Your task to perform on an android device: delete location history Image 0: 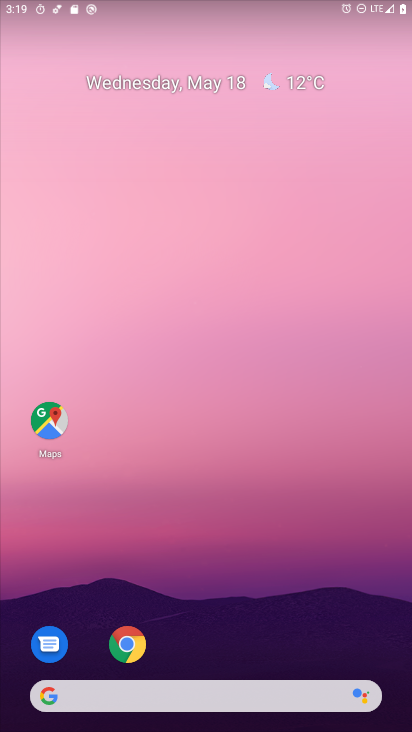
Step 0: drag from (383, 660) to (322, 129)
Your task to perform on an android device: delete location history Image 1: 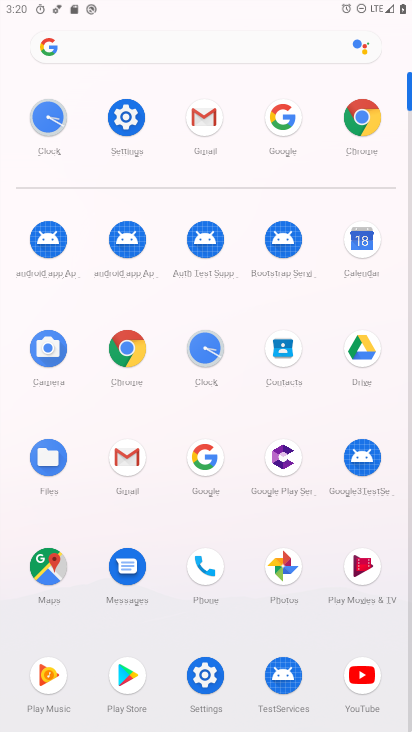
Step 1: click (52, 563)
Your task to perform on an android device: delete location history Image 2: 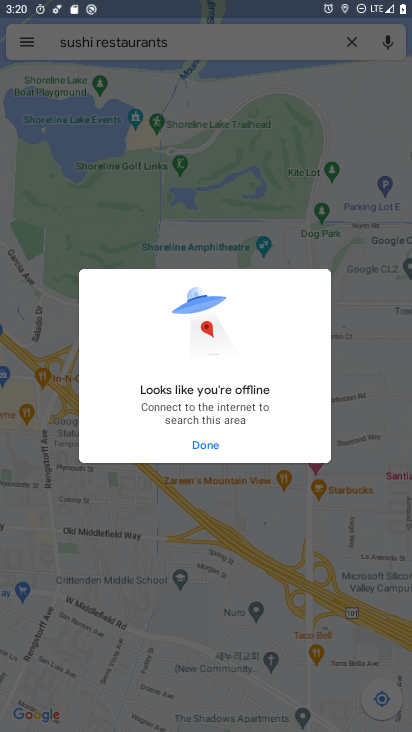
Step 2: click (199, 434)
Your task to perform on an android device: delete location history Image 3: 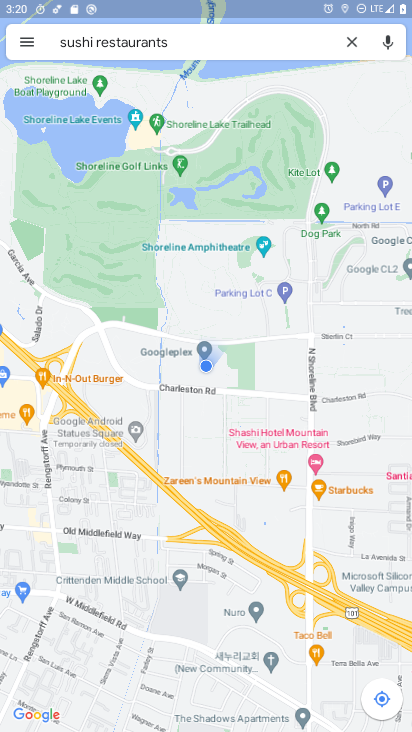
Step 3: click (190, 451)
Your task to perform on an android device: delete location history Image 4: 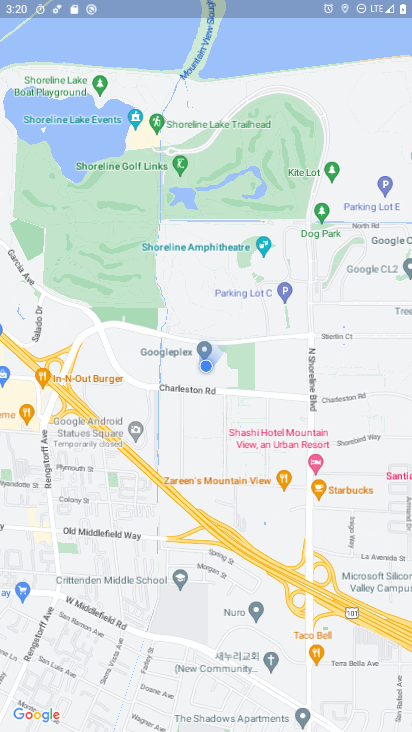
Step 4: click (398, 205)
Your task to perform on an android device: delete location history Image 5: 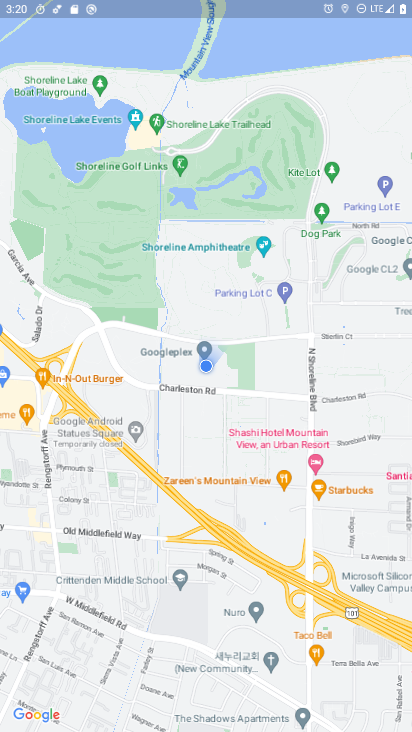
Step 5: press back button
Your task to perform on an android device: delete location history Image 6: 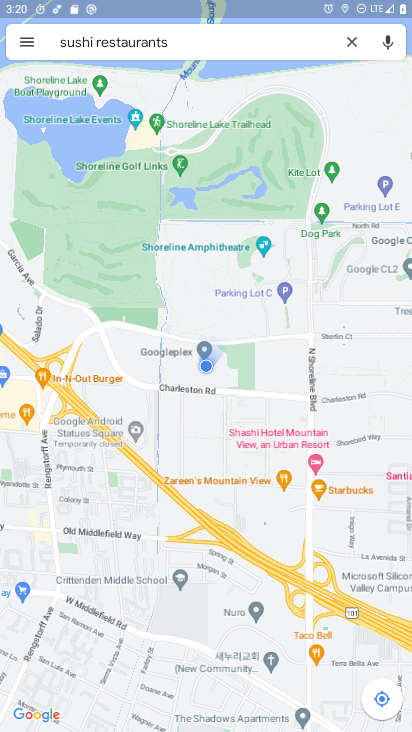
Step 6: press back button
Your task to perform on an android device: delete location history Image 7: 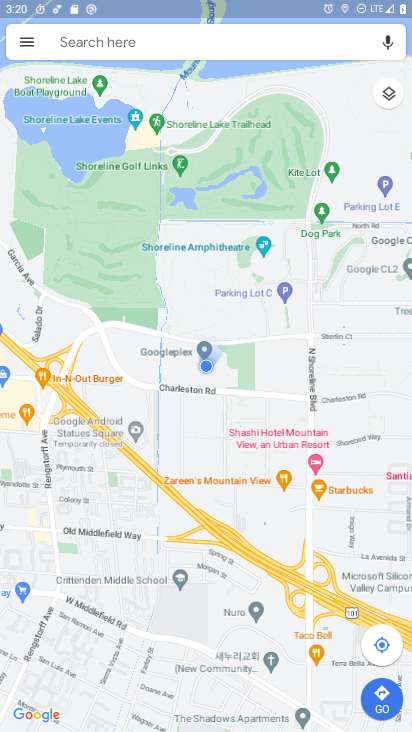
Step 7: click (32, 36)
Your task to perform on an android device: delete location history Image 8: 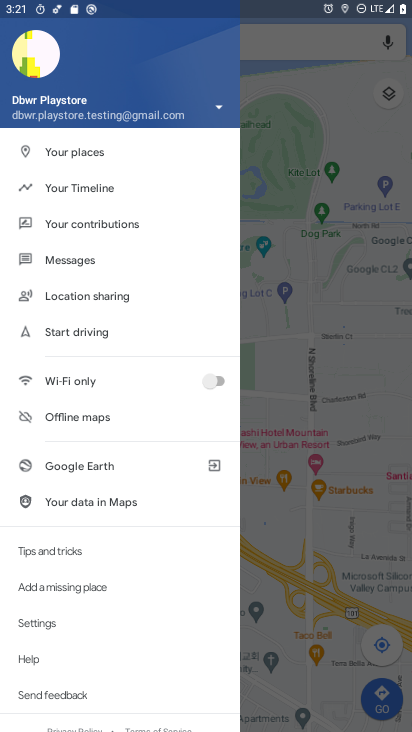
Step 8: click (82, 190)
Your task to perform on an android device: delete location history Image 9: 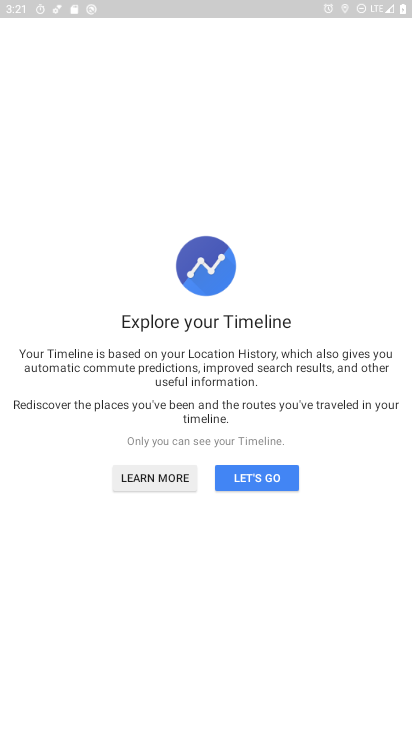
Step 9: click (231, 478)
Your task to perform on an android device: delete location history Image 10: 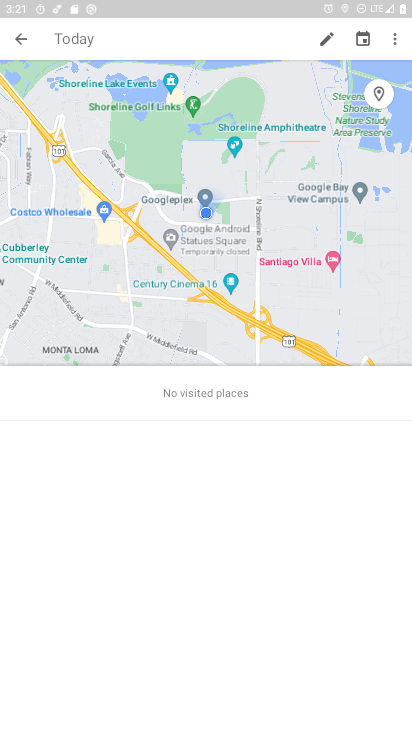
Step 10: click (392, 37)
Your task to perform on an android device: delete location history Image 11: 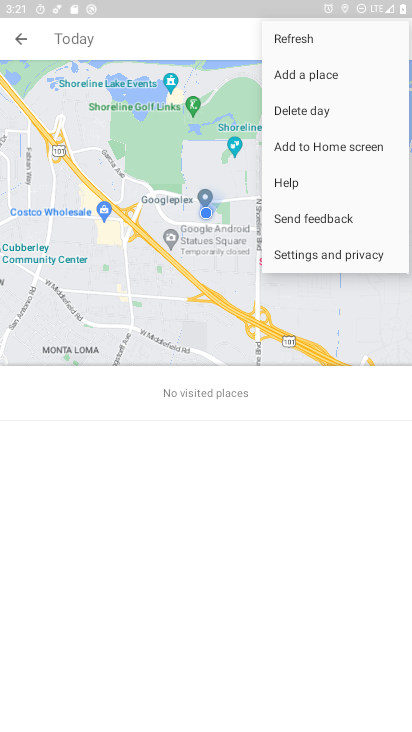
Step 11: click (322, 250)
Your task to perform on an android device: delete location history Image 12: 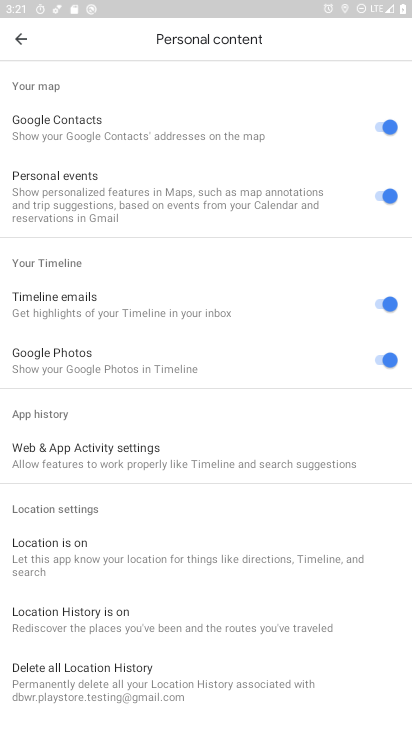
Step 12: drag from (221, 648) to (246, 373)
Your task to perform on an android device: delete location history Image 13: 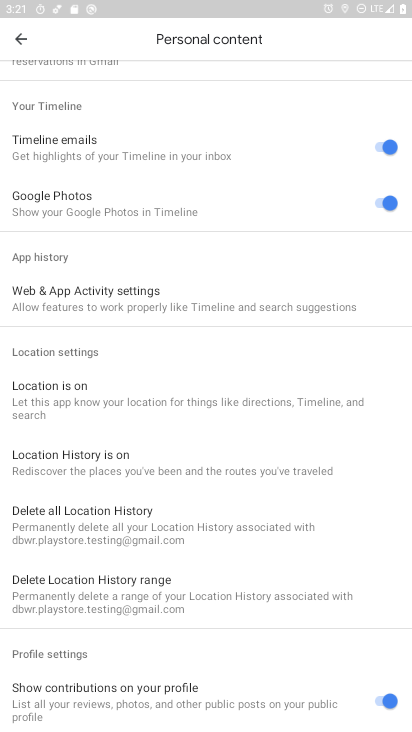
Step 13: drag from (181, 661) to (203, 405)
Your task to perform on an android device: delete location history Image 14: 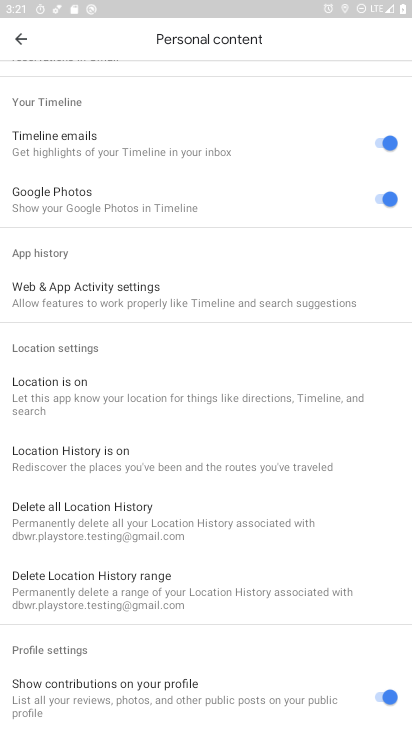
Step 14: click (82, 579)
Your task to perform on an android device: delete location history Image 15: 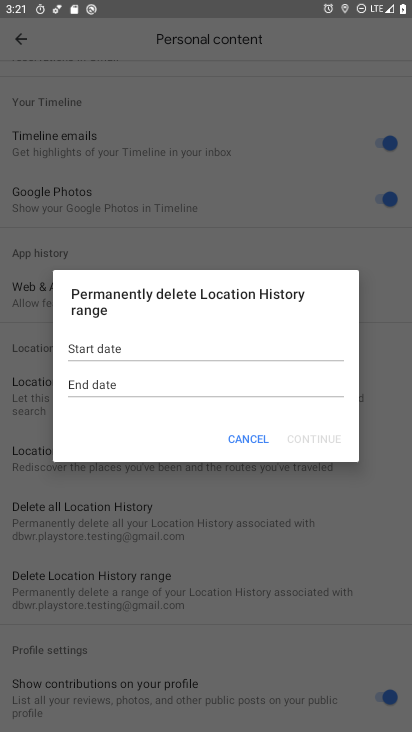
Step 15: click (246, 434)
Your task to perform on an android device: delete location history Image 16: 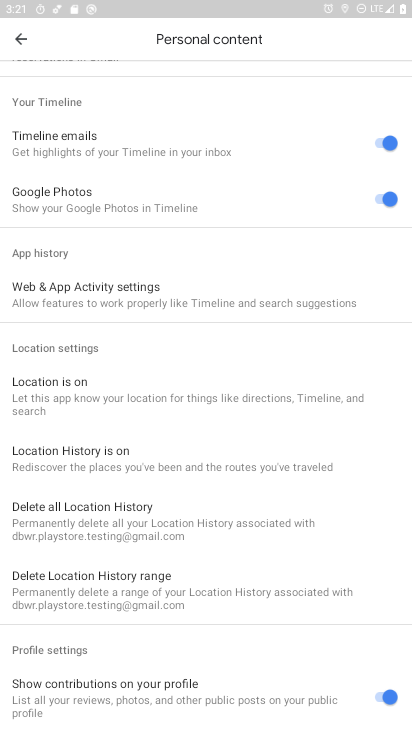
Step 16: click (66, 500)
Your task to perform on an android device: delete location history Image 17: 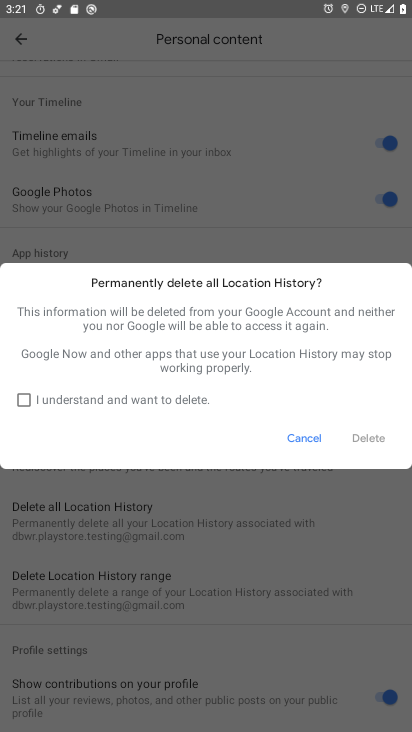
Step 17: click (28, 395)
Your task to perform on an android device: delete location history Image 18: 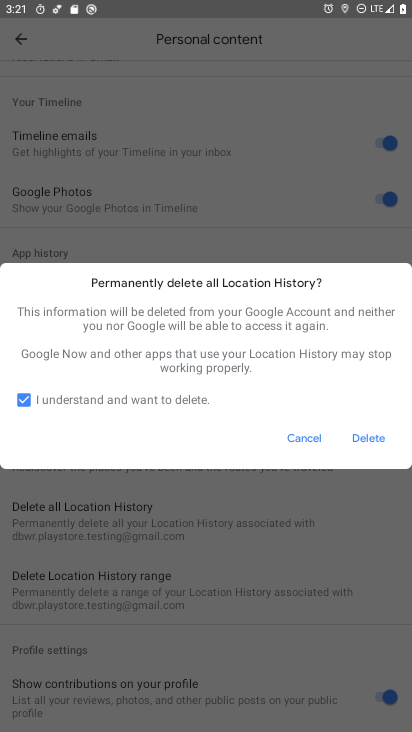
Step 18: click (371, 436)
Your task to perform on an android device: delete location history Image 19: 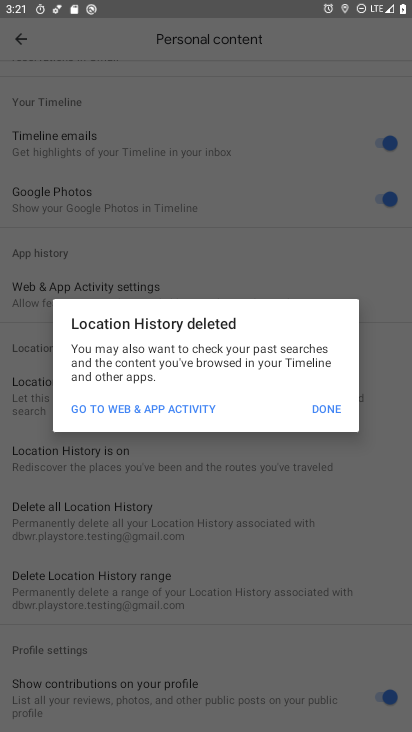
Step 19: task complete